Your task to perform on an android device: Open Maps and search for coffee Image 0: 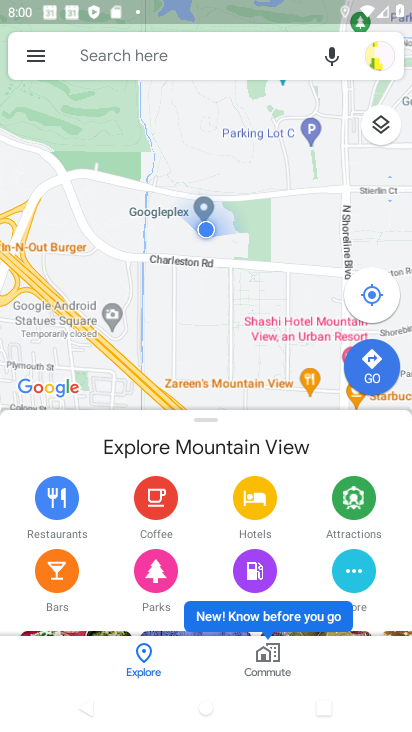
Step 0: click (168, 50)
Your task to perform on an android device: Open Maps and search for coffee Image 1: 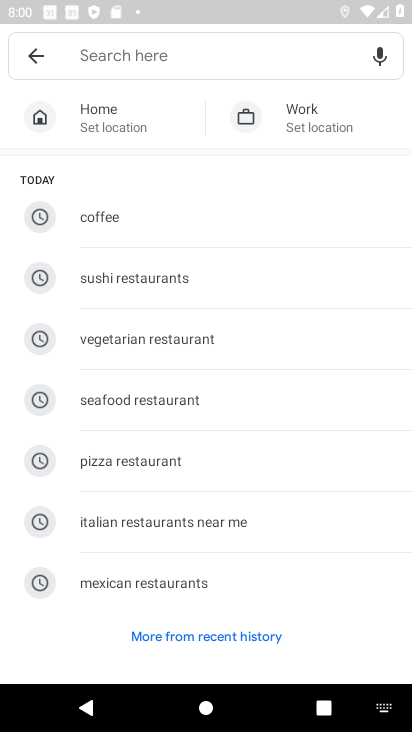
Step 1: click (98, 218)
Your task to perform on an android device: Open Maps and search for coffee Image 2: 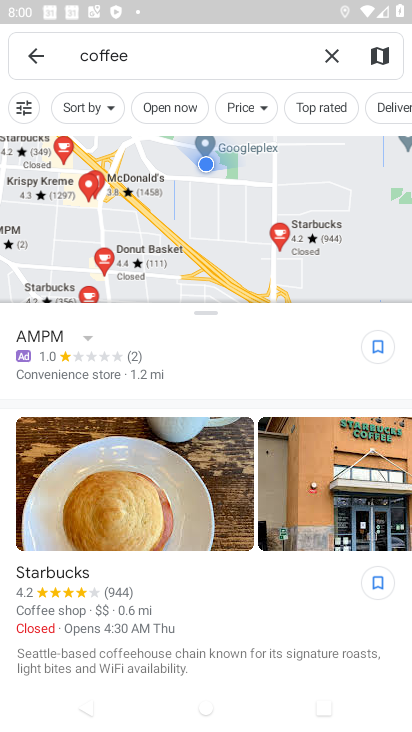
Step 2: task complete